Your task to perform on an android device: Open ESPN.com Image 0: 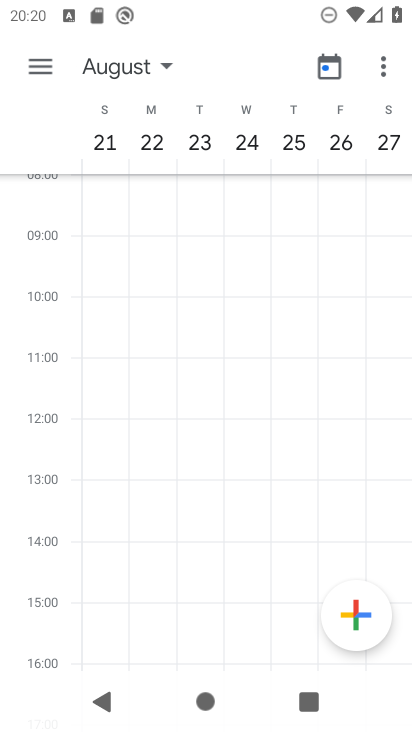
Step 0: press home button
Your task to perform on an android device: Open ESPN.com Image 1: 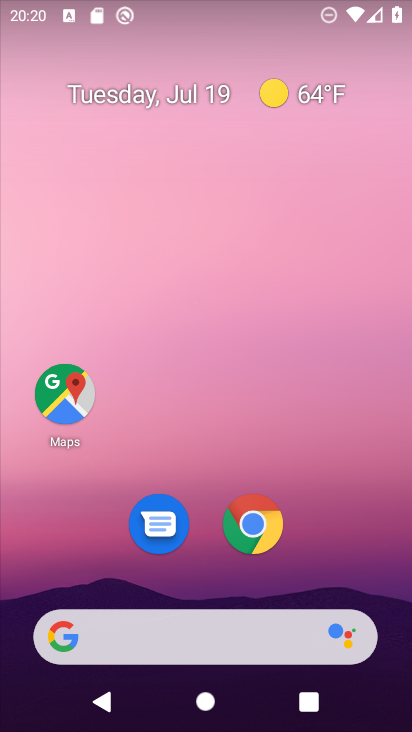
Step 1: click (274, 641)
Your task to perform on an android device: Open ESPN.com Image 2: 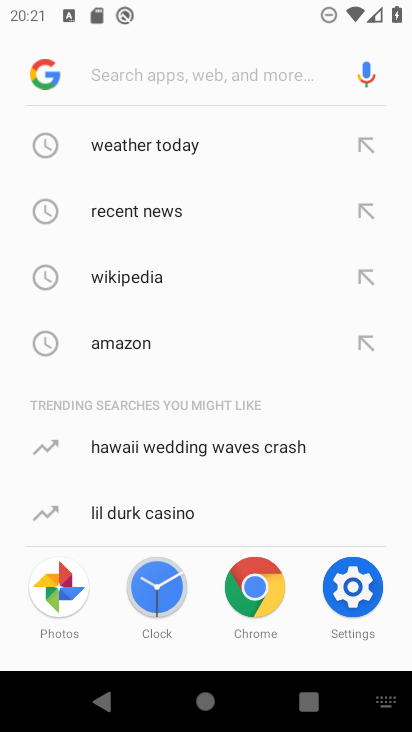
Step 2: type "espn.com"
Your task to perform on an android device: Open ESPN.com Image 3: 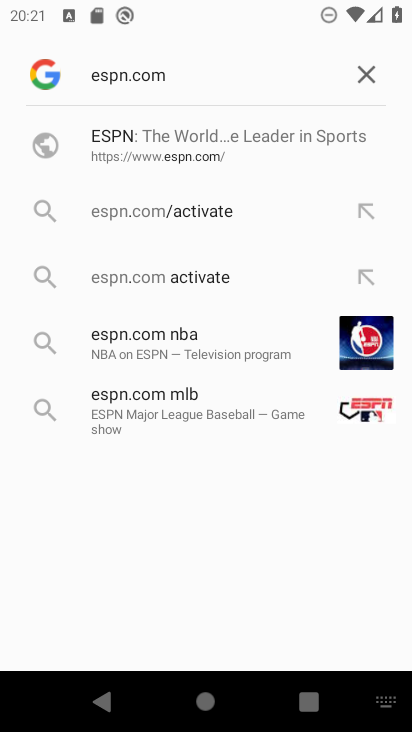
Step 3: click (151, 146)
Your task to perform on an android device: Open ESPN.com Image 4: 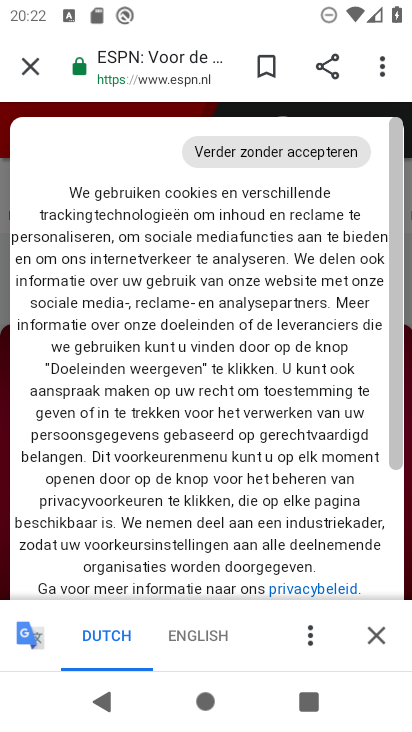
Step 4: click (196, 635)
Your task to perform on an android device: Open ESPN.com Image 5: 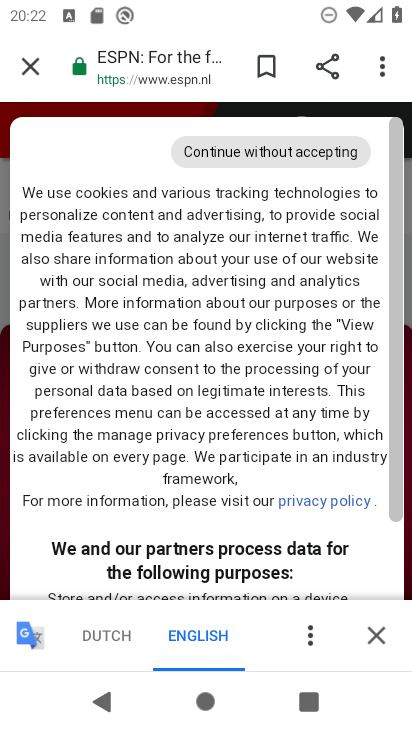
Step 5: click (344, 155)
Your task to perform on an android device: Open ESPN.com Image 6: 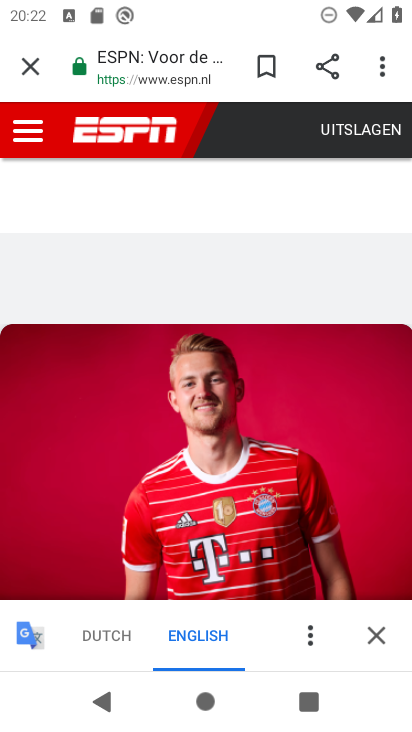
Step 6: task complete